Your task to perform on an android device: add a contact Image 0: 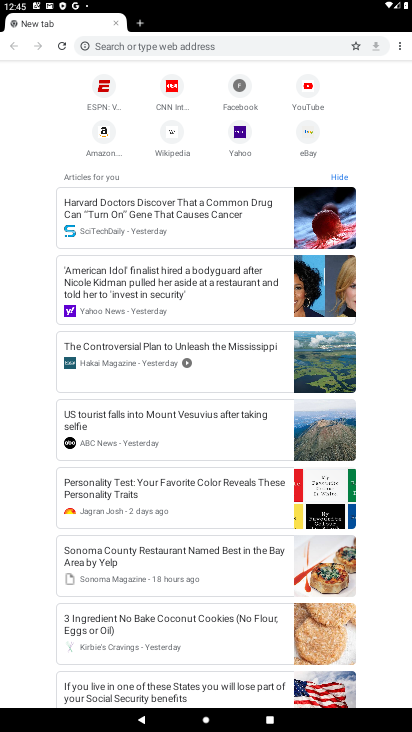
Step 0: press home button
Your task to perform on an android device: add a contact Image 1: 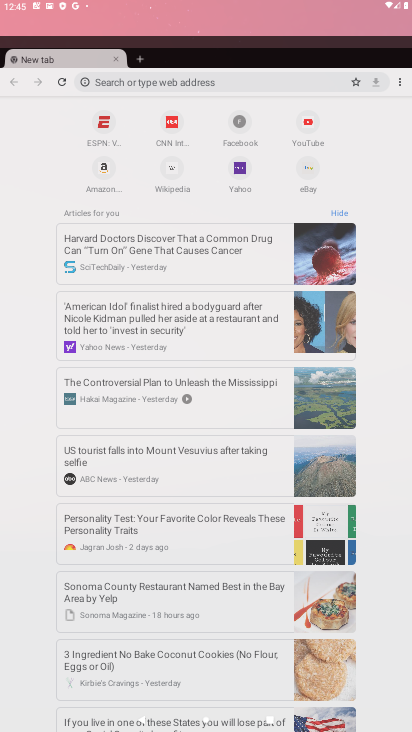
Step 1: drag from (355, 676) to (286, 23)
Your task to perform on an android device: add a contact Image 2: 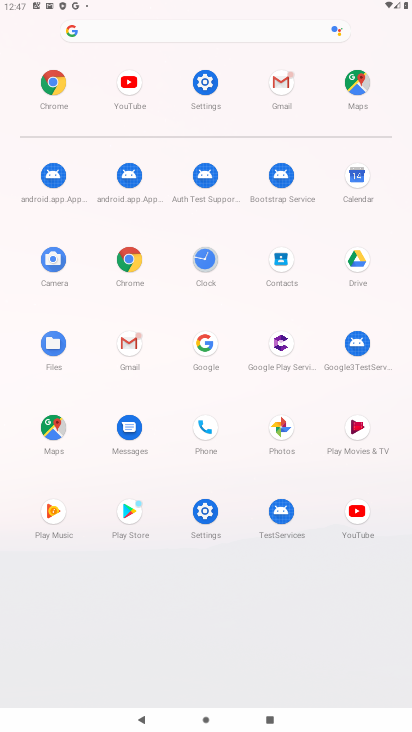
Step 2: click (272, 250)
Your task to perform on an android device: add a contact Image 3: 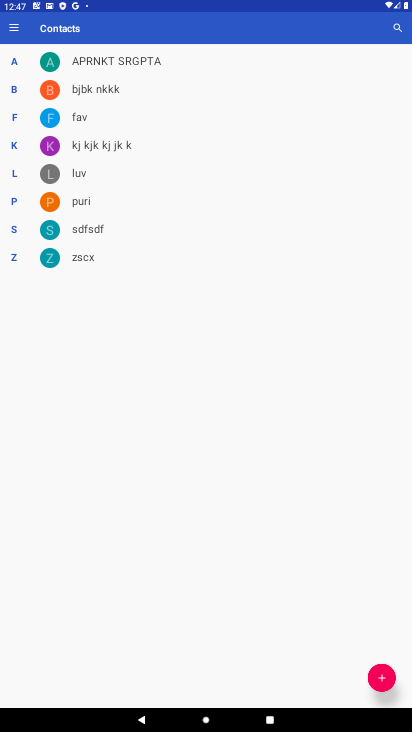
Step 3: click (380, 675)
Your task to perform on an android device: add a contact Image 4: 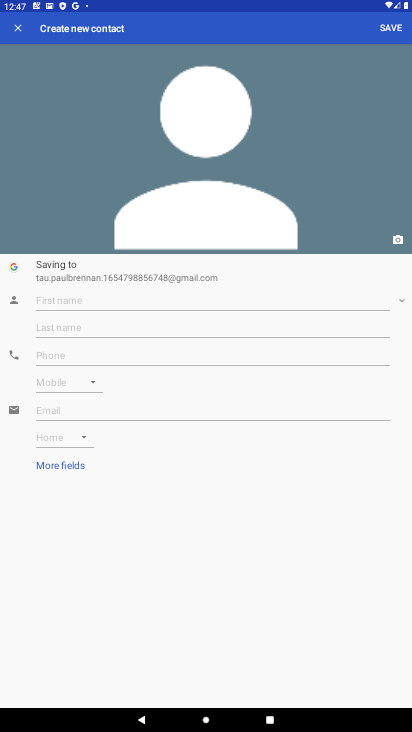
Step 4: click (77, 301)
Your task to perform on an android device: add a contact Image 5: 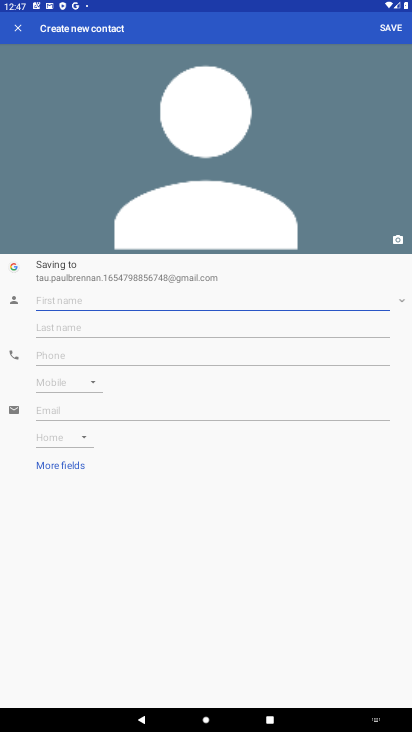
Step 5: type "uktrisht"
Your task to perform on an android device: add a contact Image 6: 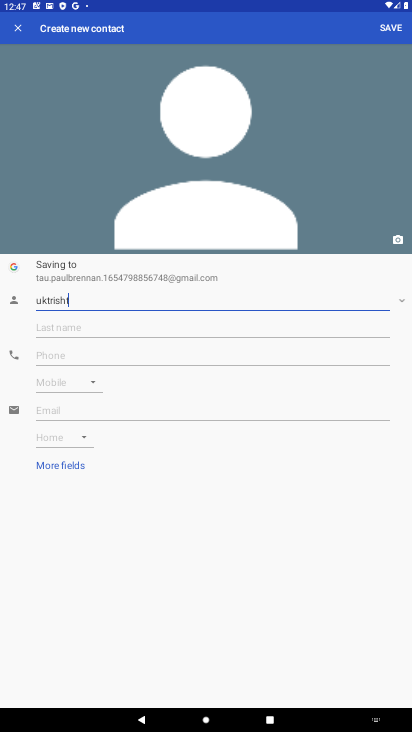
Step 6: click (380, 22)
Your task to perform on an android device: add a contact Image 7: 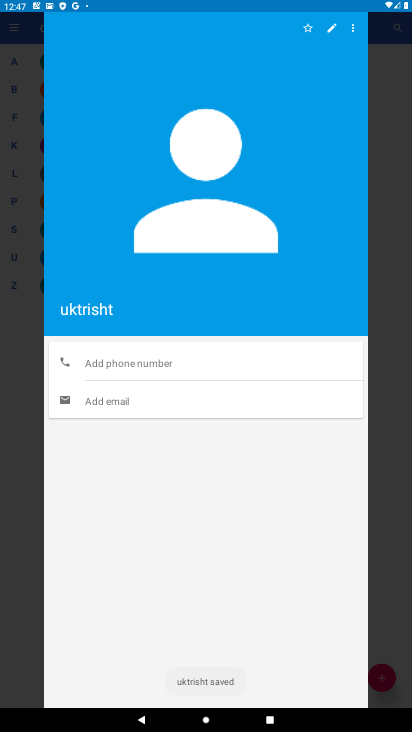
Step 7: task complete